Your task to perform on an android device: Find coffee shops on Maps Image 0: 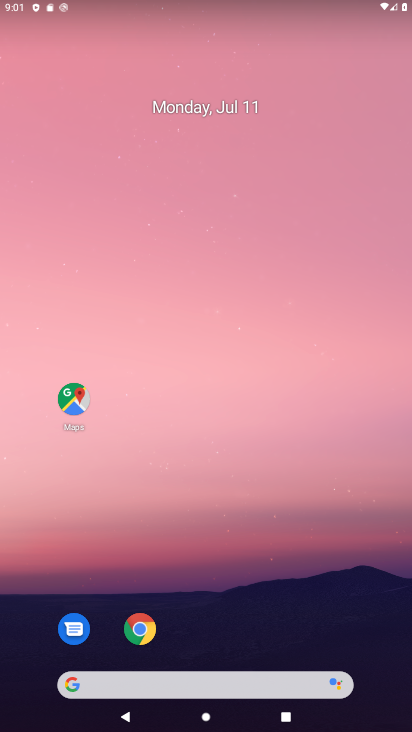
Step 0: click (78, 394)
Your task to perform on an android device: Find coffee shops on Maps Image 1: 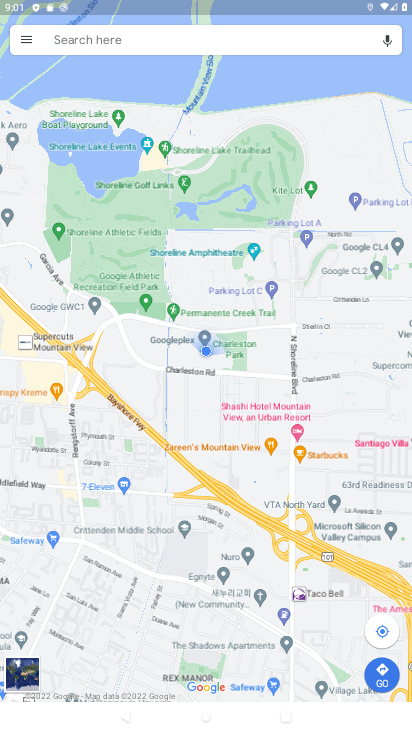
Step 1: click (78, 41)
Your task to perform on an android device: Find coffee shops on Maps Image 2: 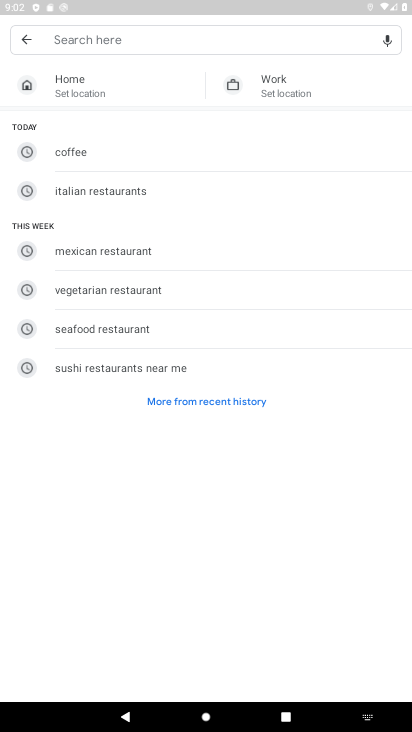
Step 2: type "coffee shops"
Your task to perform on an android device: Find coffee shops on Maps Image 3: 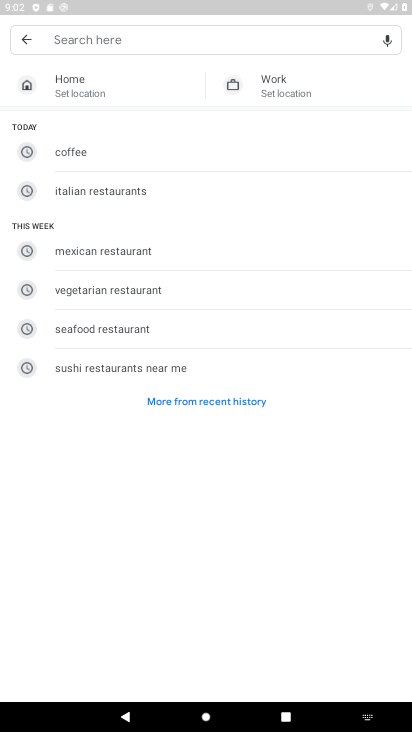
Step 3: click (76, 149)
Your task to perform on an android device: Find coffee shops on Maps Image 4: 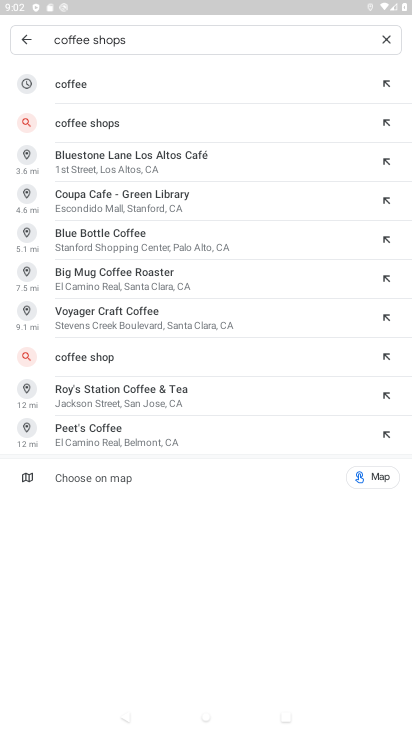
Step 4: click (92, 126)
Your task to perform on an android device: Find coffee shops on Maps Image 5: 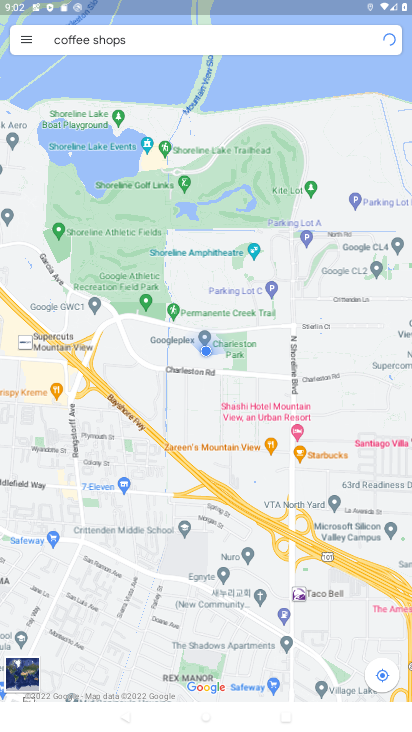
Step 5: task complete